Your task to perform on an android device: open chrome and create a bookmark for the current page Image 0: 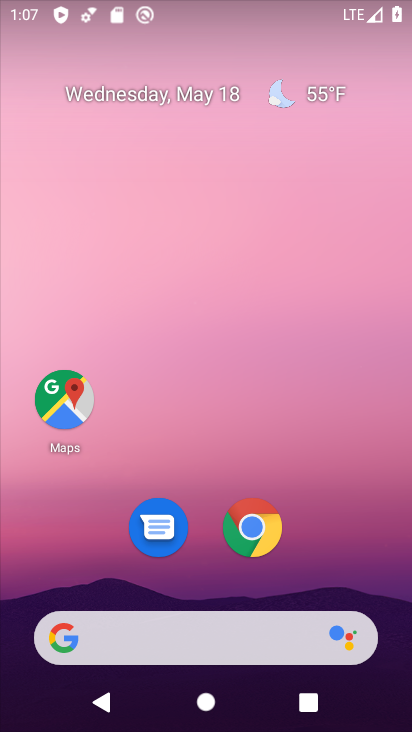
Step 0: click (267, 525)
Your task to perform on an android device: open chrome and create a bookmark for the current page Image 1: 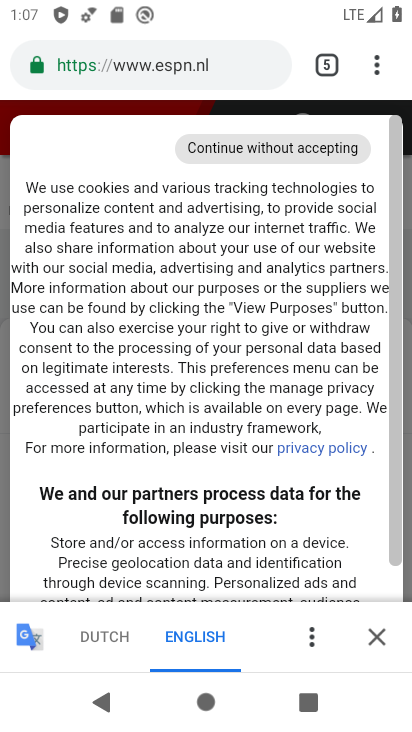
Step 1: click (374, 65)
Your task to perform on an android device: open chrome and create a bookmark for the current page Image 2: 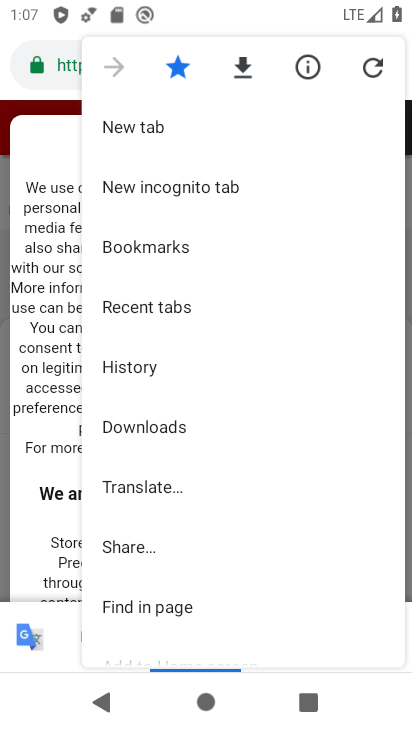
Step 2: task complete